Your task to perform on an android device: What's on my calendar today? Image 0: 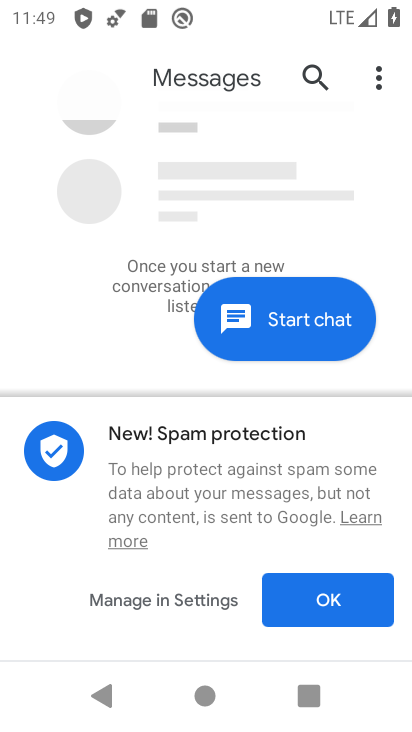
Step 0: click (193, 551)
Your task to perform on an android device: What's on my calendar today? Image 1: 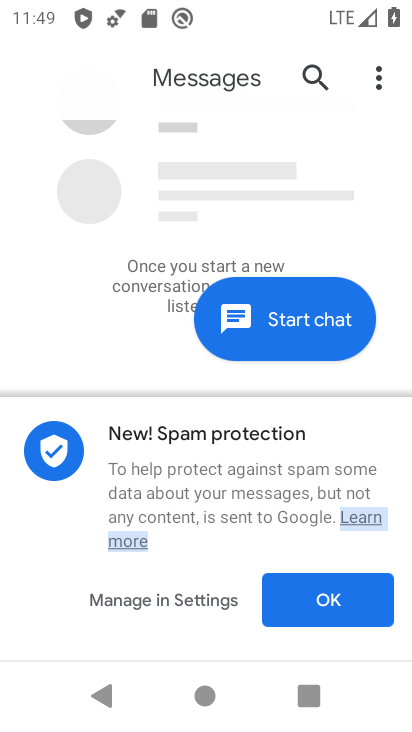
Step 1: press home button
Your task to perform on an android device: What's on my calendar today? Image 2: 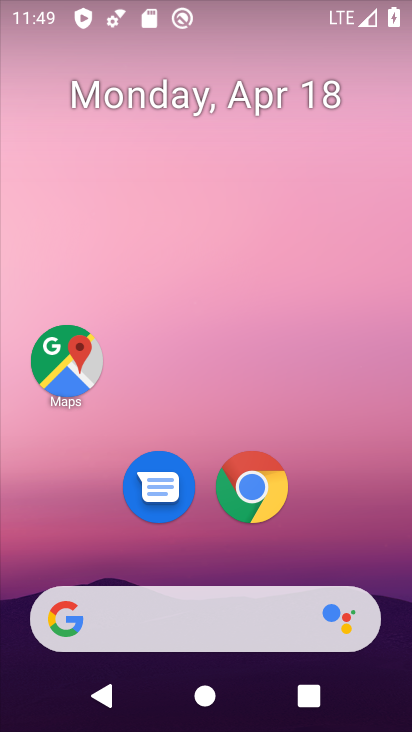
Step 2: drag from (204, 551) to (164, 4)
Your task to perform on an android device: What's on my calendar today? Image 3: 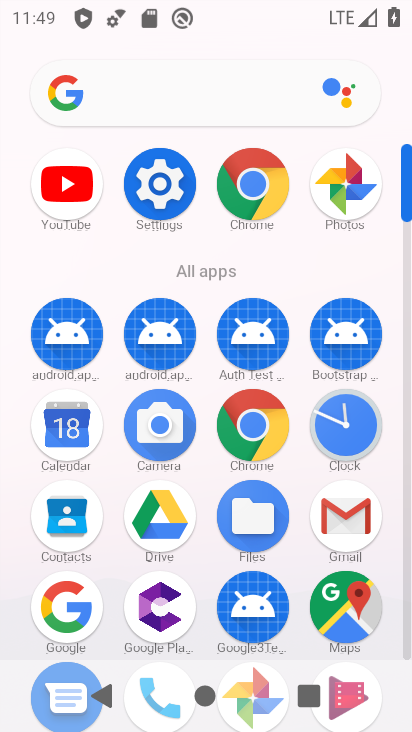
Step 3: click (53, 426)
Your task to perform on an android device: What's on my calendar today? Image 4: 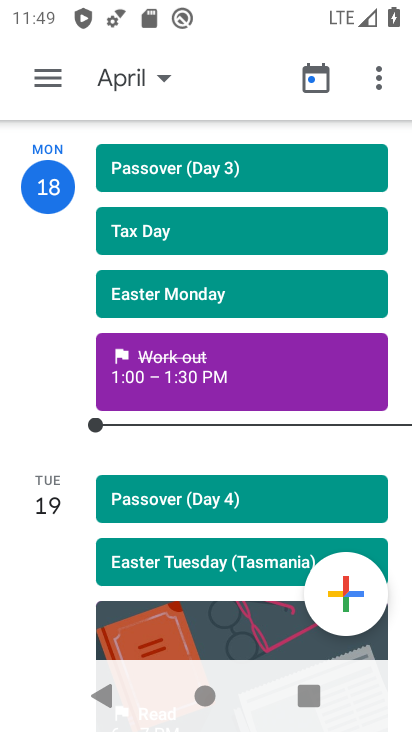
Step 4: click (24, 67)
Your task to perform on an android device: What's on my calendar today? Image 5: 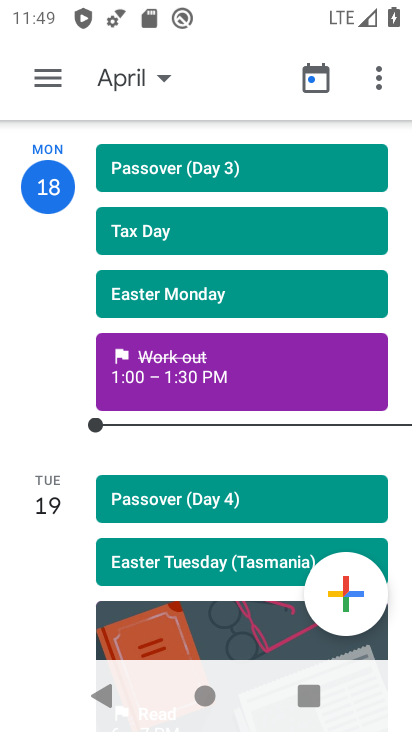
Step 5: click (115, 169)
Your task to perform on an android device: What's on my calendar today? Image 6: 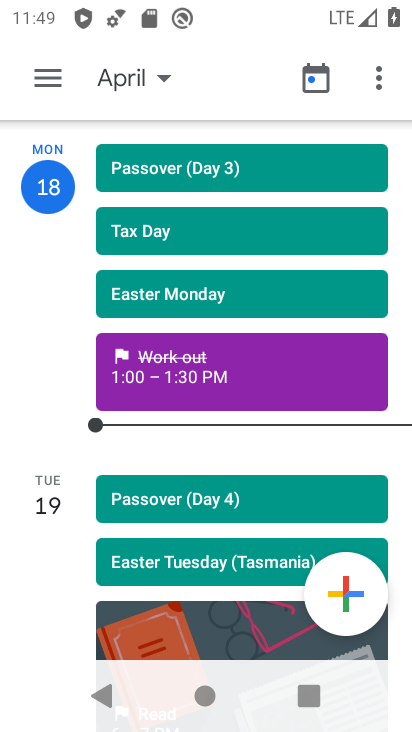
Step 6: task complete